Your task to perform on an android device: turn off data saver in the chrome app Image 0: 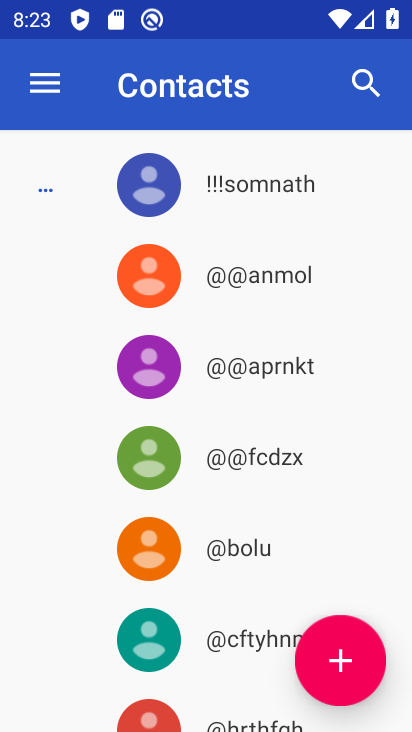
Step 0: press home button
Your task to perform on an android device: turn off data saver in the chrome app Image 1: 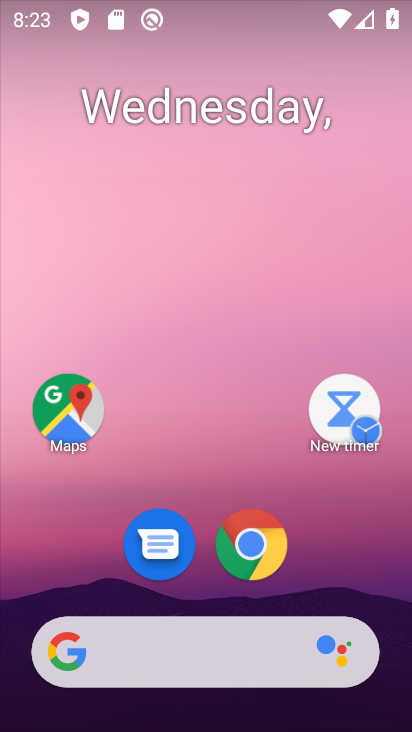
Step 1: drag from (252, 516) to (173, 19)
Your task to perform on an android device: turn off data saver in the chrome app Image 2: 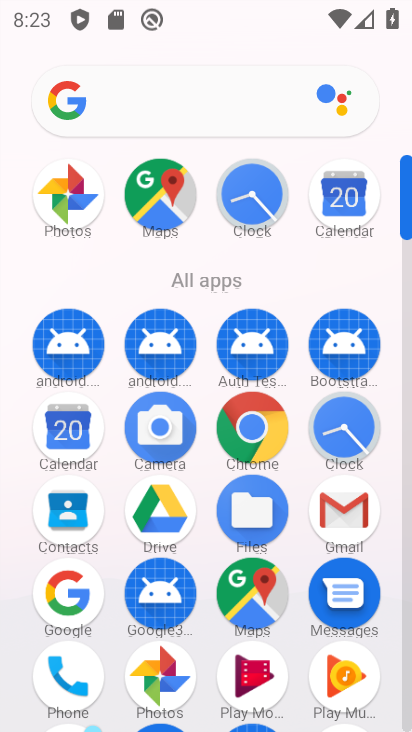
Step 2: click (245, 426)
Your task to perform on an android device: turn off data saver in the chrome app Image 3: 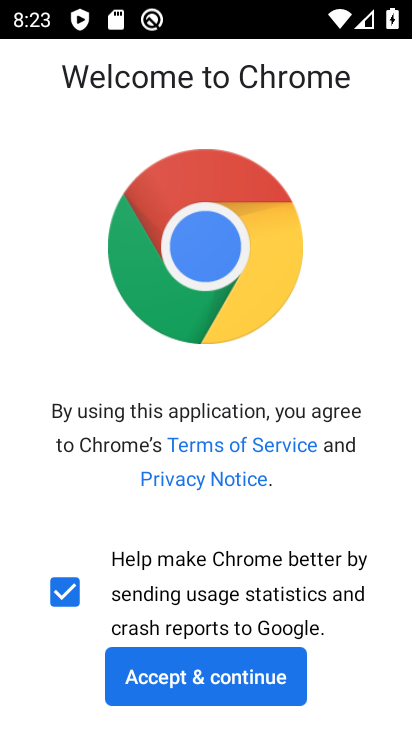
Step 3: click (212, 675)
Your task to perform on an android device: turn off data saver in the chrome app Image 4: 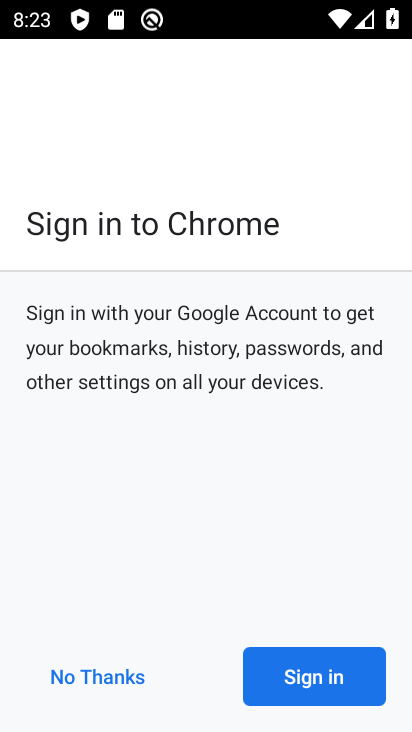
Step 4: click (218, 679)
Your task to perform on an android device: turn off data saver in the chrome app Image 5: 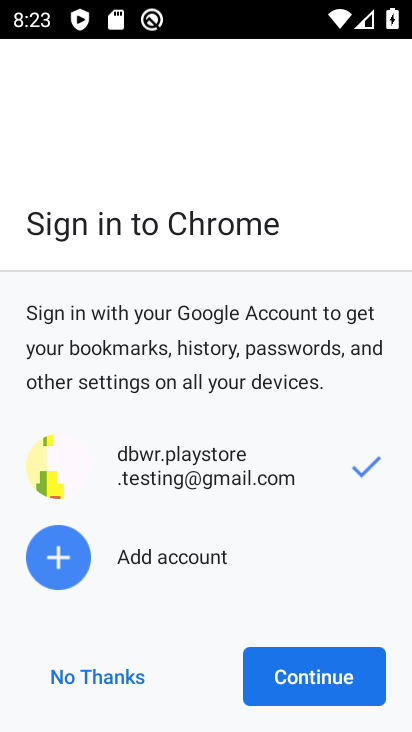
Step 5: click (219, 680)
Your task to perform on an android device: turn off data saver in the chrome app Image 6: 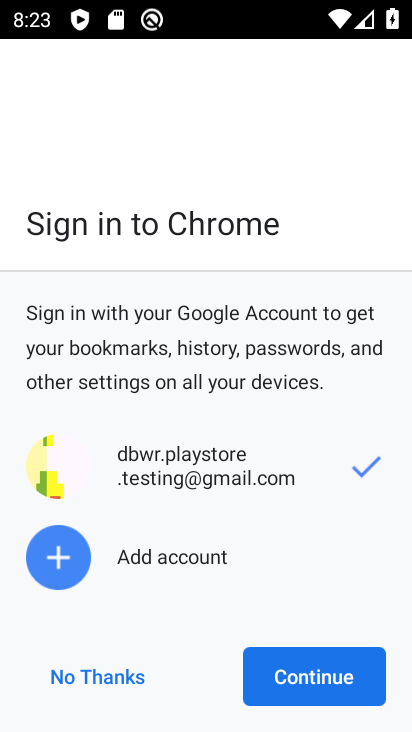
Step 6: click (298, 675)
Your task to perform on an android device: turn off data saver in the chrome app Image 7: 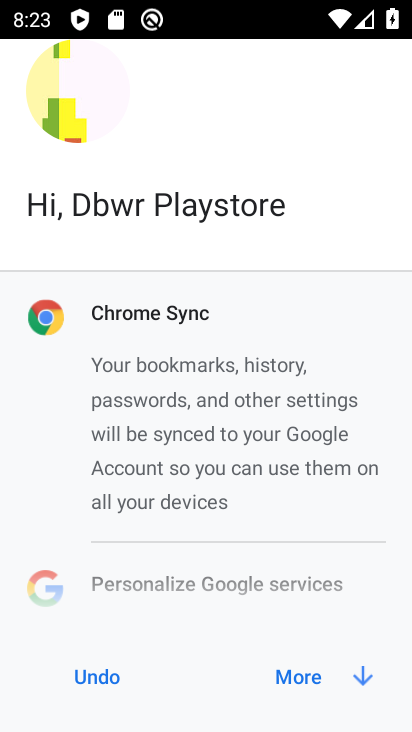
Step 7: click (303, 672)
Your task to perform on an android device: turn off data saver in the chrome app Image 8: 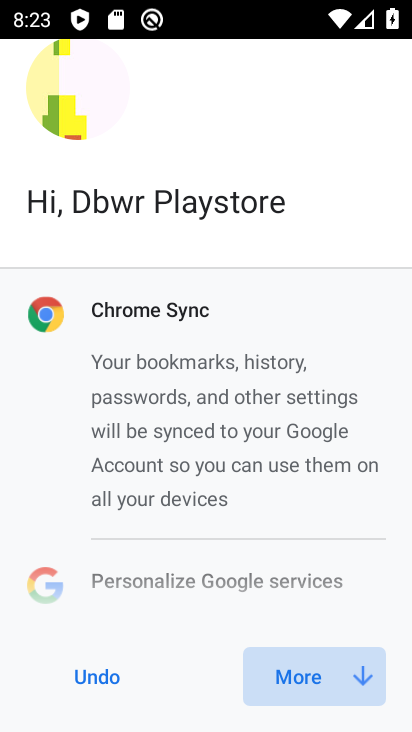
Step 8: click (303, 672)
Your task to perform on an android device: turn off data saver in the chrome app Image 9: 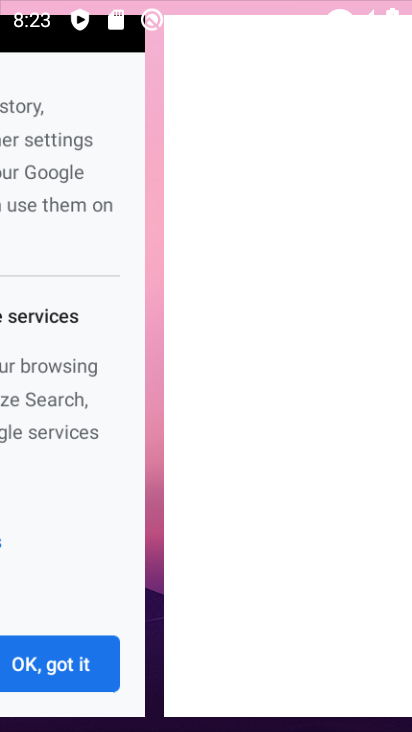
Step 9: click (304, 667)
Your task to perform on an android device: turn off data saver in the chrome app Image 10: 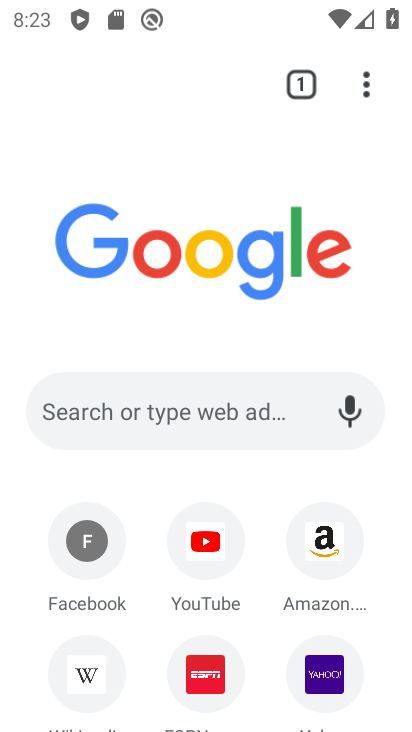
Step 10: drag from (366, 77) to (210, 435)
Your task to perform on an android device: turn off data saver in the chrome app Image 11: 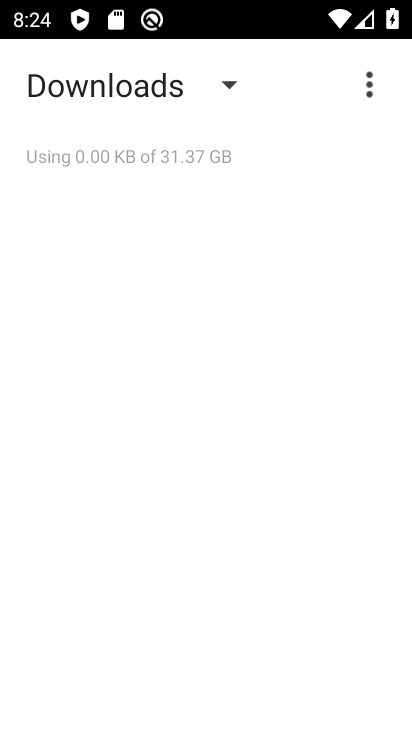
Step 11: press back button
Your task to perform on an android device: turn off data saver in the chrome app Image 12: 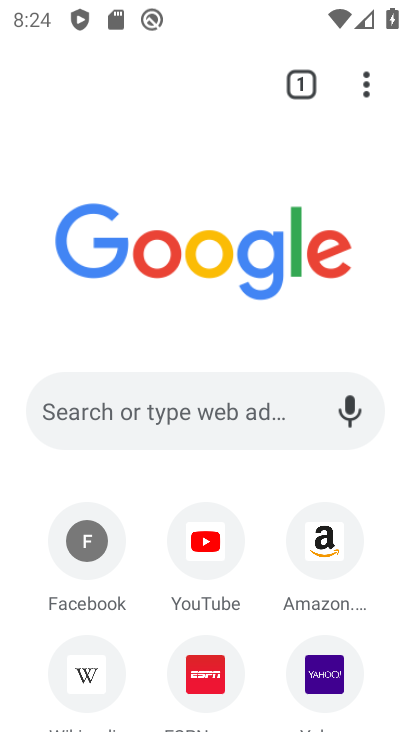
Step 12: drag from (363, 77) to (117, 591)
Your task to perform on an android device: turn off data saver in the chrome app Image 13: 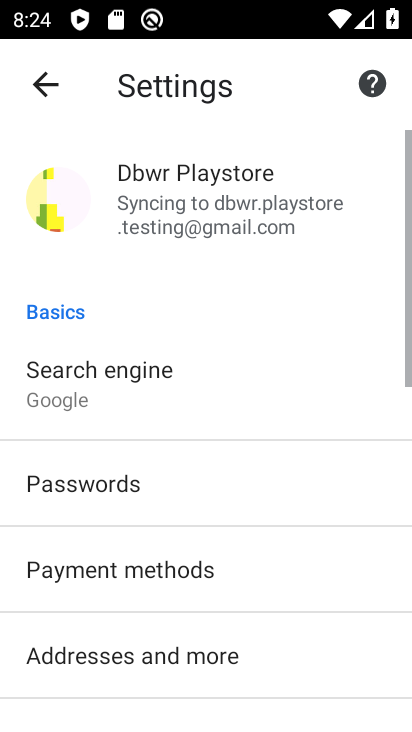
Step 13: drag from (161, 574) to (95, 304)
Your task to perform on an android device: turn off data saver in the chrome app Image 14: 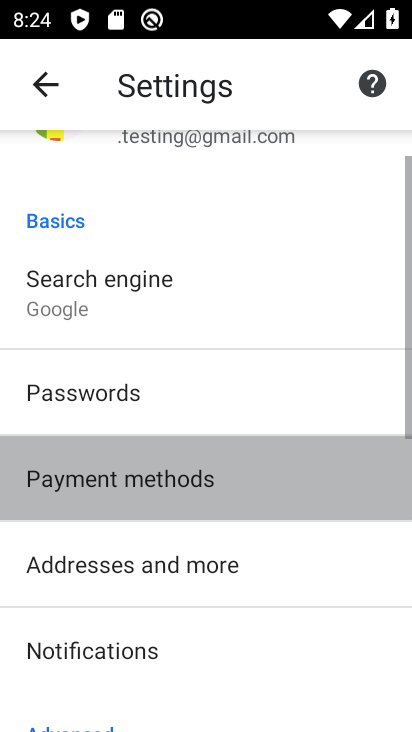
Step 14: drag from (125, 464) to (109, 151)
Your task to perform on an android device: turn off data saver in the chrome app Image 15: 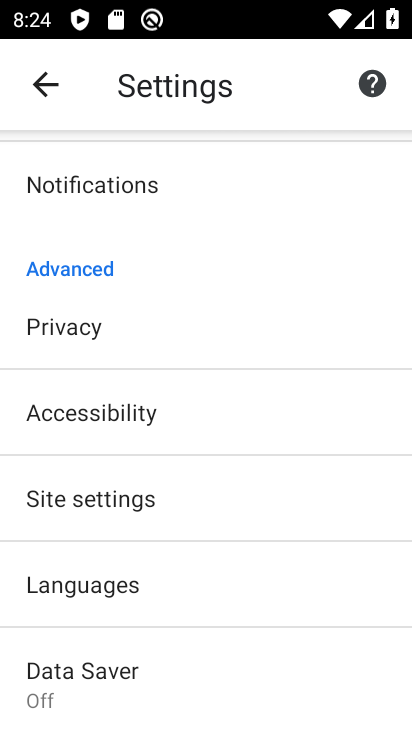
Step 15: click (79, 664)
Your task to perform on an android device: turn off data saver in the chrome app Image 16: 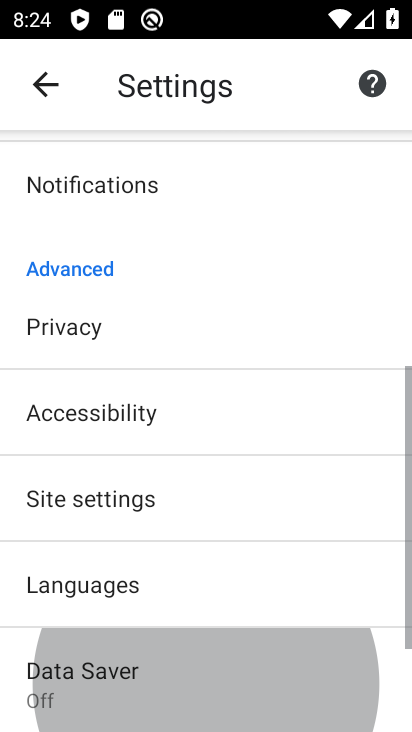
Step 16: click (79, 664)
Your task to perform on an android device: turn off data saver in the chrome app Image 17: 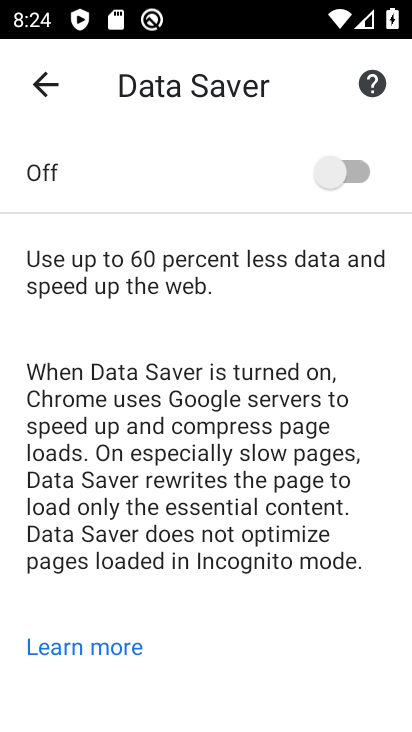
Step 17: task complete